Your task to perform on an android device: toggle show notifications on the lock screen Image 0: 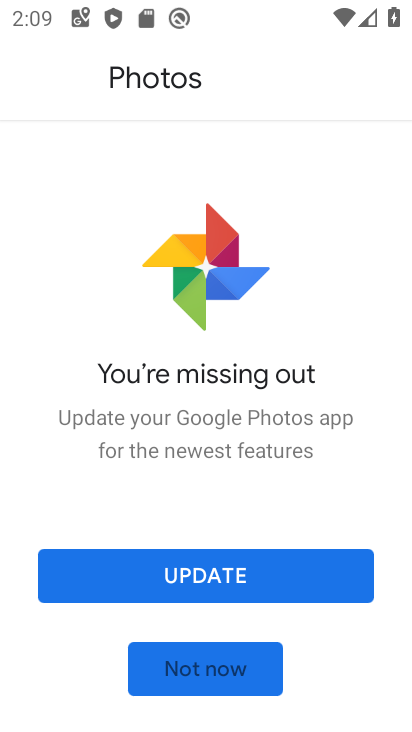
Step 0: press home button
Your task to perform on an android device: toggle show notifications on the lock screen Image 1: 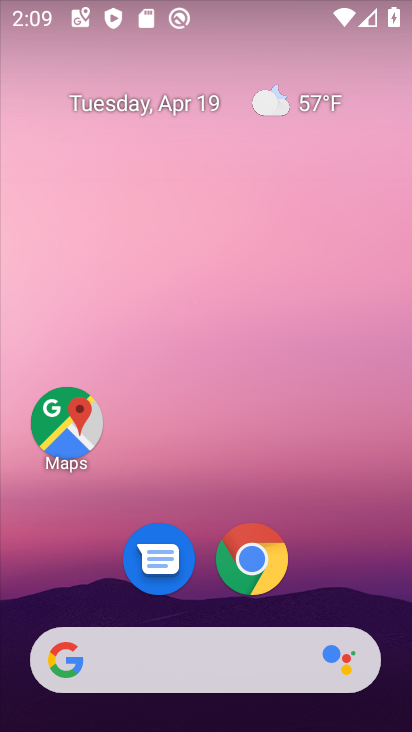
Step 1: drag from (207, 594) to (201, 111)
Your task to perform on an android device: toggle show notifications on the lock screen Image 2: 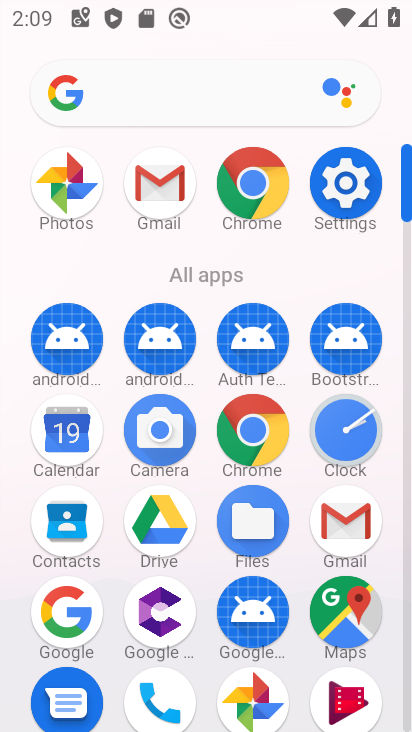
Step 2: click (342, 178)
Your task to perform on an android device: toggle show notifications on the lock screen Image 3: 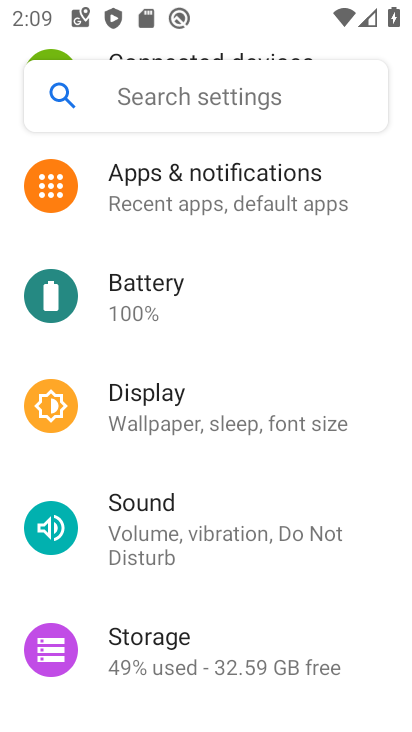
Step 3: click (175, 189)
Your task to perform on an android device: toggle show notifications on the lock screen Image 4: 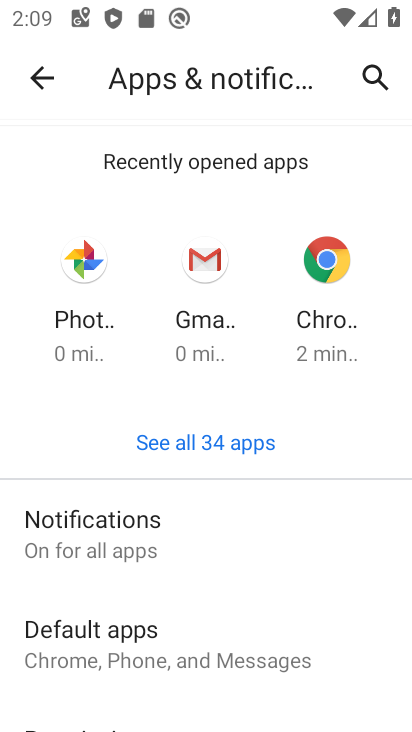
Step 4: click (174, 527)
Your task to perform on an android device: toggle show notifications on the lock screen Image 5: 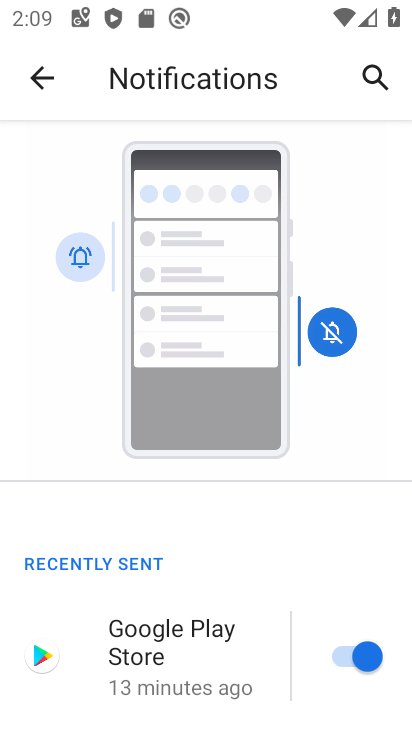
Step 5: drag from (268, 639) to (250, 148)
Your task to perform on an android device: toggle show notifications on the lock screen Image 6: 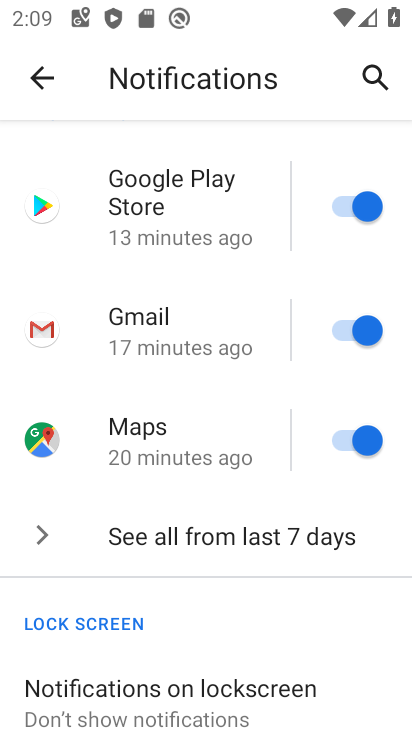
Step 6: click (235, 692)
Your task to perform on an android device: toggle show notifications on the lock screen Image 7: 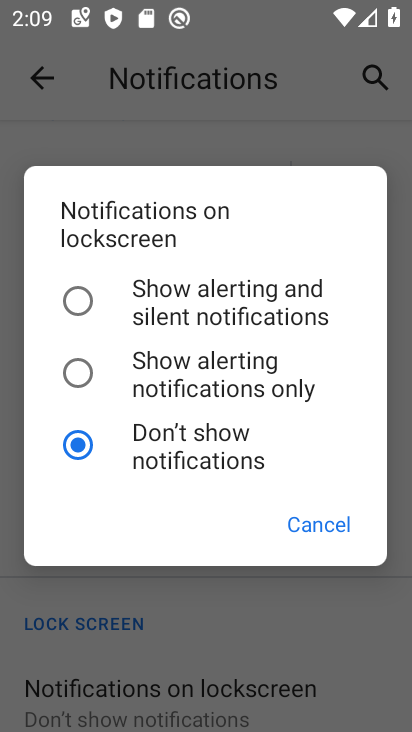
Step 7: click (80, 293)
Your task to perform on an android device: toggle show notifications on the lock screen Image 8: 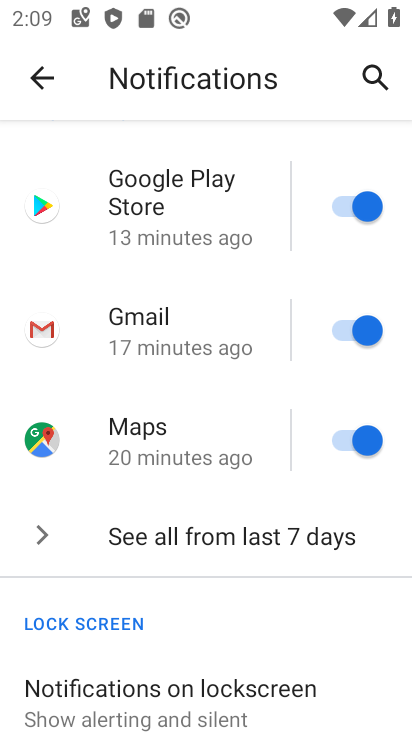
Step 8: task complete